Your task to perform on an android device: Go to CNN.com Image 0: 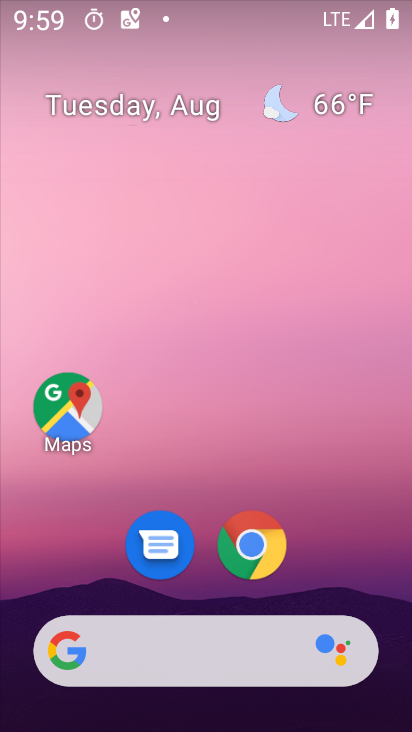
Step 0: drag from (295, 531) to (340, 172)
Your task to perform on an android device: Go to CNN.com Image 1: 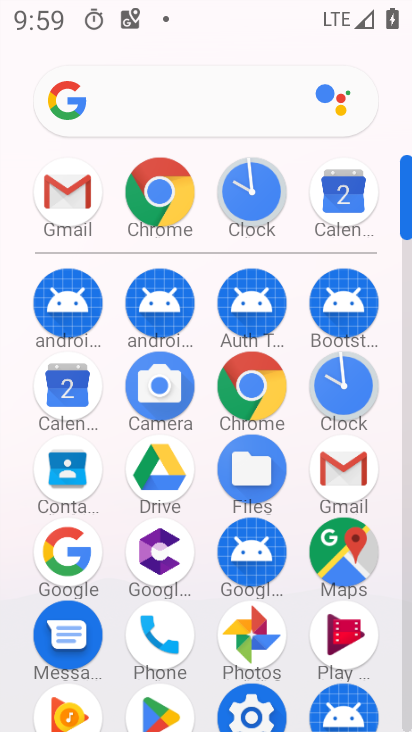
Step 1: drag from (276, 567) to (309, 302)
Your task to perform on an android device: Go to CNN.com Image 2: 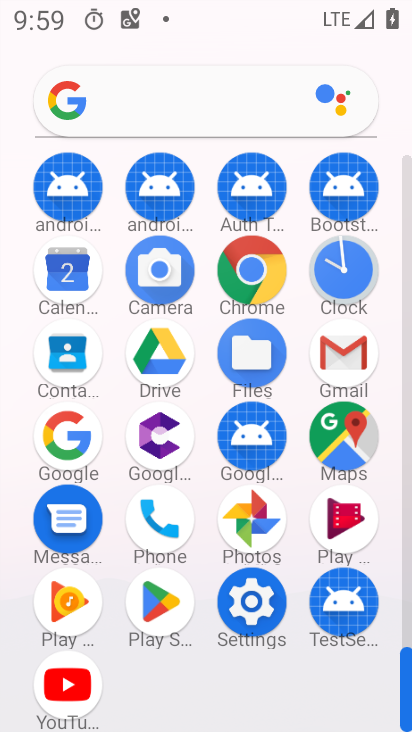
Step 2: click (261, 272)
Your task to perform on an android device: Go to CNN.com Image 3: 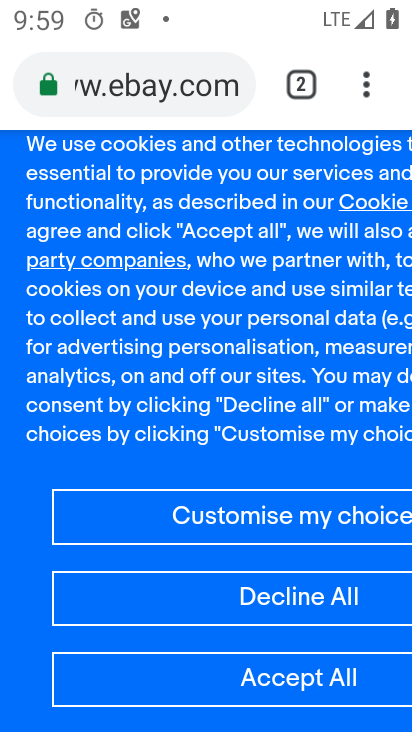
Step 3: click (174, 77)
Your task to perform on an android device: Go to CNN.com Image 4: 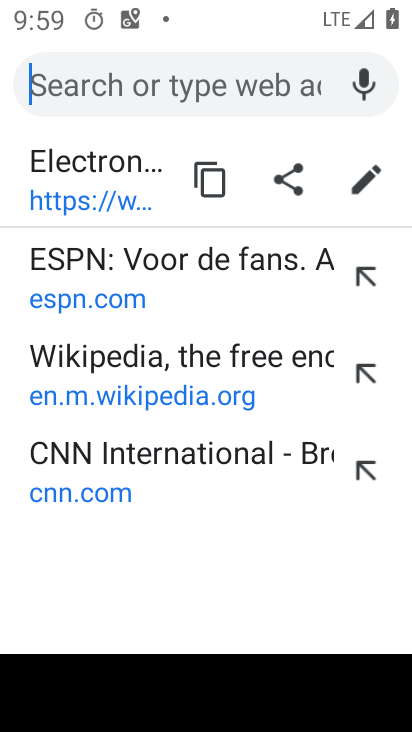
Step 4: click (169, 507)
Your task to perform on an android device: Go to CNN.com Image 5: 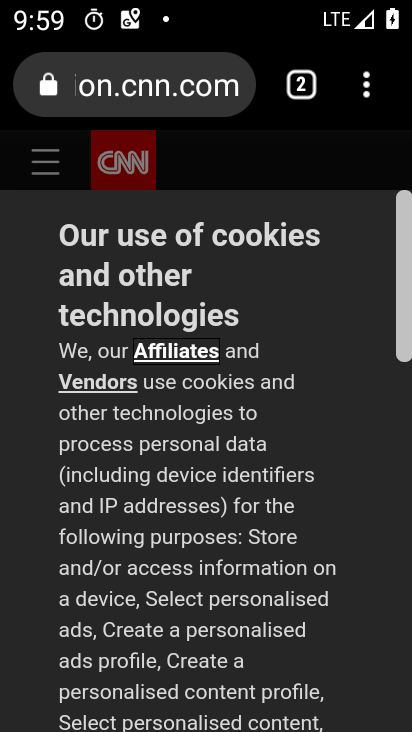
Step 5: task complete